Your task to perform on an android device: see creations saved in the google photos Image 0: 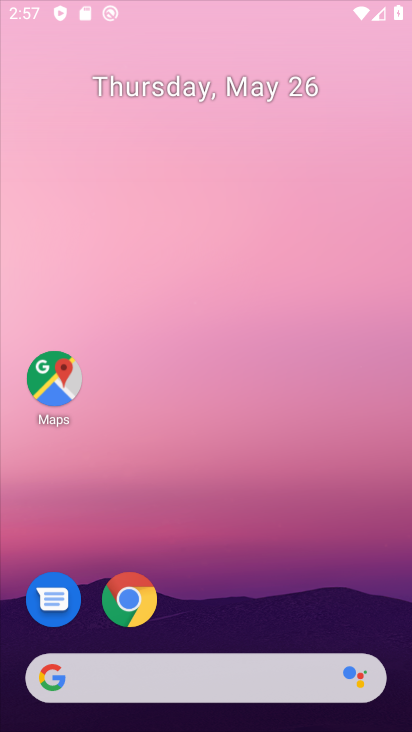
Step 0: drag from (331, 194) to (232, 157)
Your task to perform on an android device: see creations saved in the google photos Image 1: 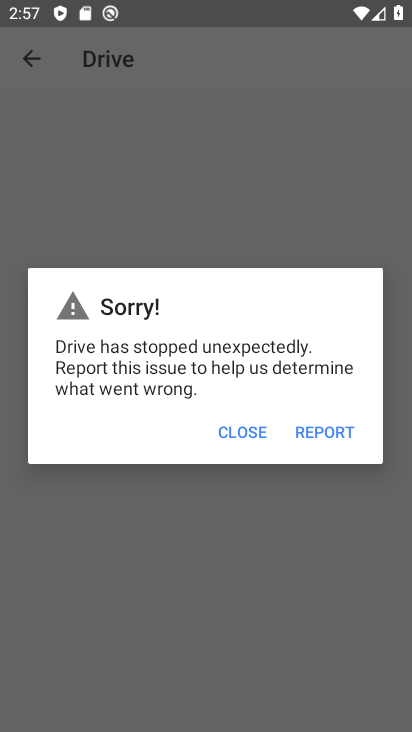
Step 1: press home button
Your task to perform on an android device: see creations saved in the google photos Image 2: 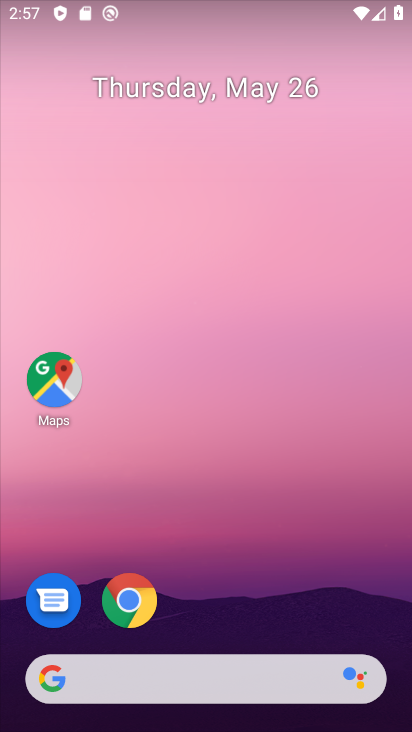
Step 2: drag from (302, 608) to (283, 161)
Your task to perform on an android device: see creations saved in the google photos Image 3: 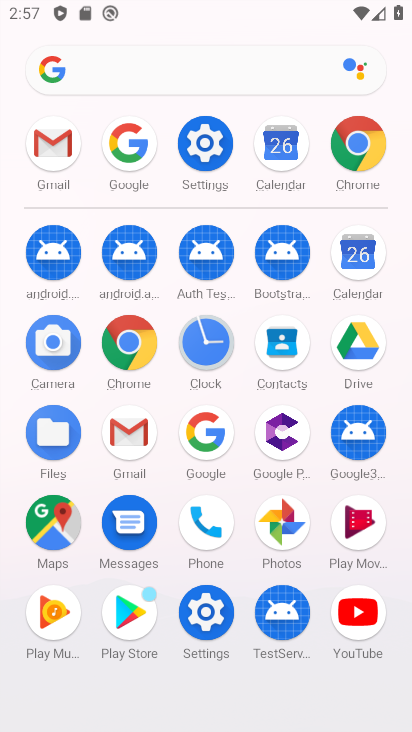
Step 3: click (281, 536)
Your task to perform on an android device: see creations saved in the google photos Image 4: 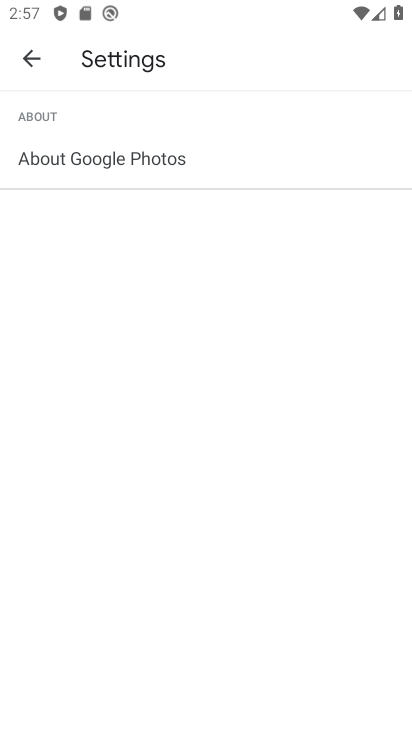
Step 4: click (52, 46)
Your task to perform on an android device: see creations saved in the google photos Image 5: 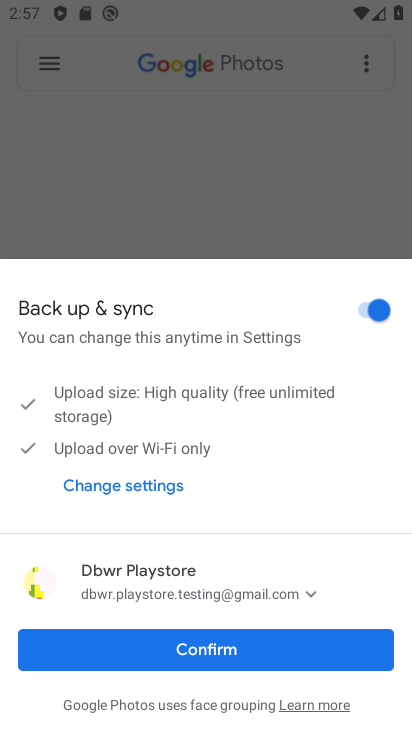
Step 5: click (294, 639)
Your task to perform on an android device: see creations saved in the google photos Image 6: 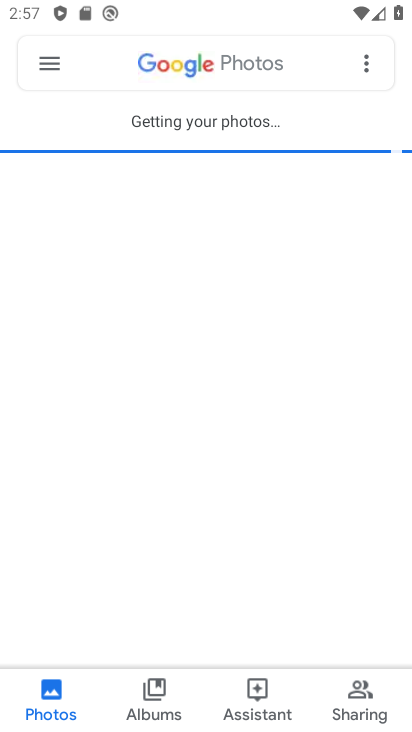
Step 6: click (209, 52)
Your task to perform on an android device: see creations saved in the google photos Image 7: 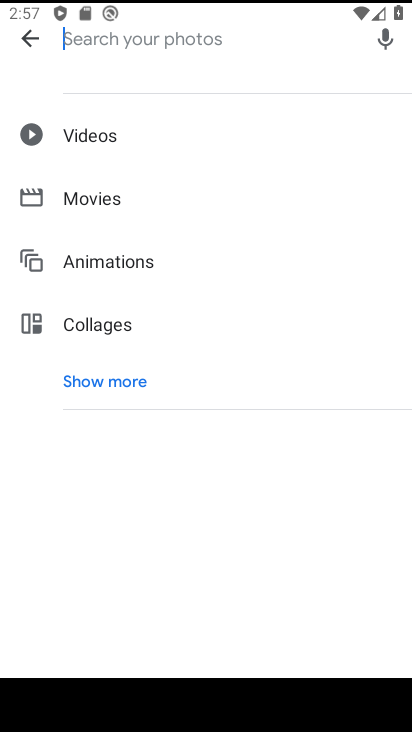
Step 7: click (129, 378)
Your task to perform on an android device: see creations saved in the google photos Image 8: 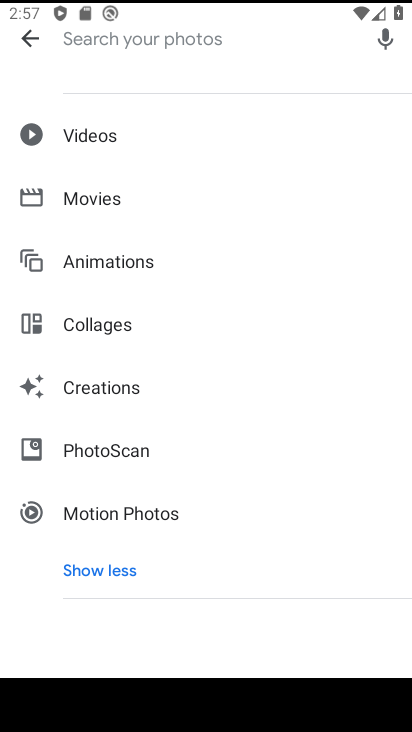
Step 8: click (80, 378)
Your task to perform on an android device: see creations saved in the google photos Image 9: 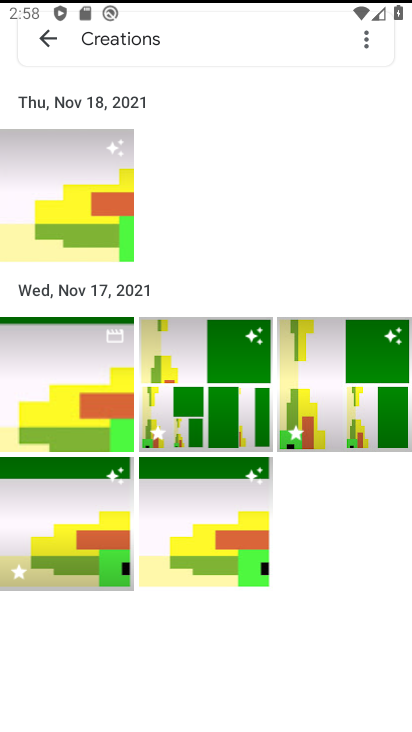
Step 9: task complete